Your task to perform on an android device: move a message to another label in the gmail app Image 0: 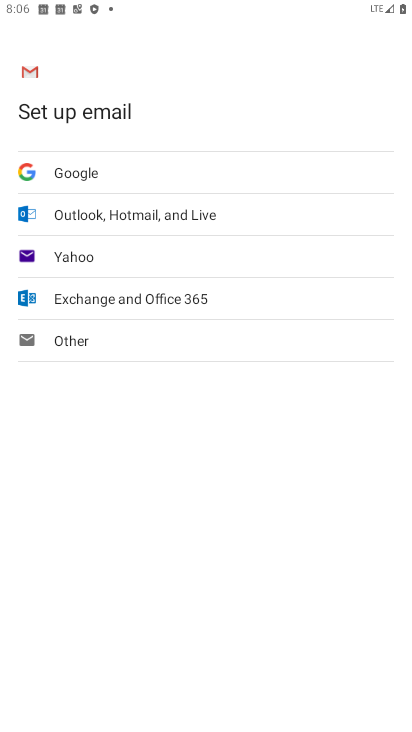
Step 0: press home button
Your task to perform on an android device: move a message to another label in the gmail app Image 1: 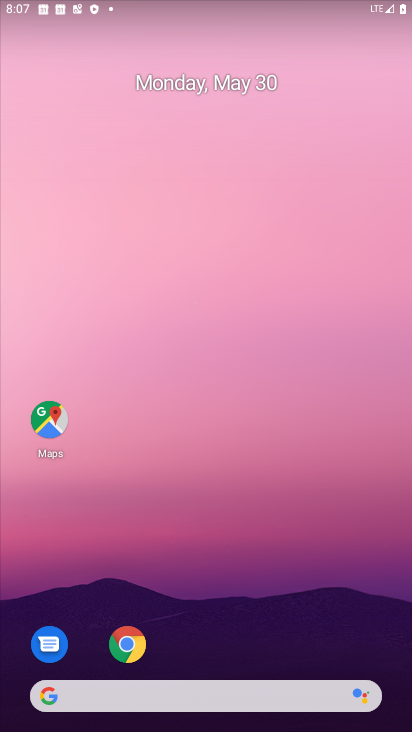
Step 1: drag from (240, 639) to (128, 91)
Your task to perform on an android device: move a message to another label in the gmail app Image 2: 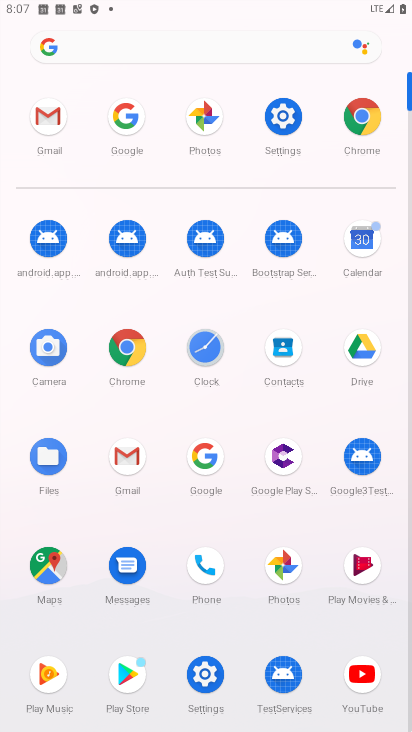
Step 2: click (47, 113)
Your task to perform on an android device: move a message to another label in the gmail app Image 3: 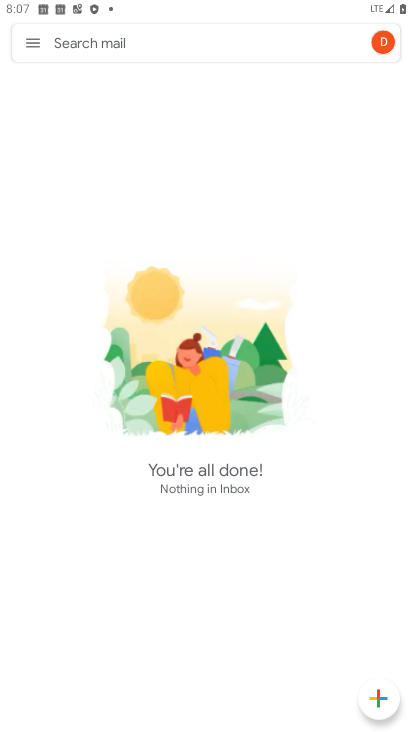
Step 3: click (34, 43)
Your task to perform on an android device: move a message to another label in the gmail app Image 4: 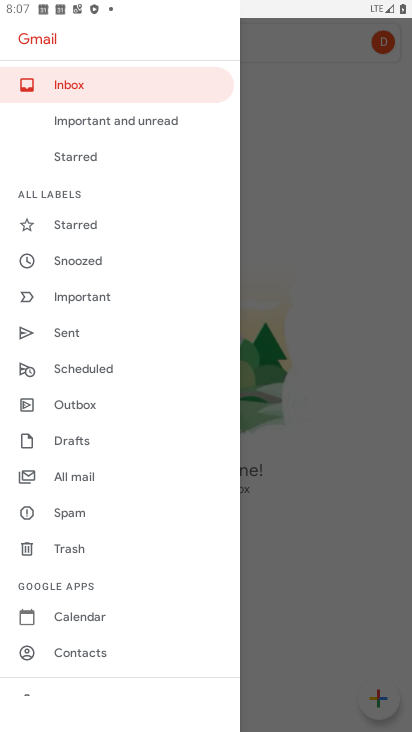
Step 4: click (79, 467)
Your task to perform on an android device: move a message to another label in the gmail app Image 5: 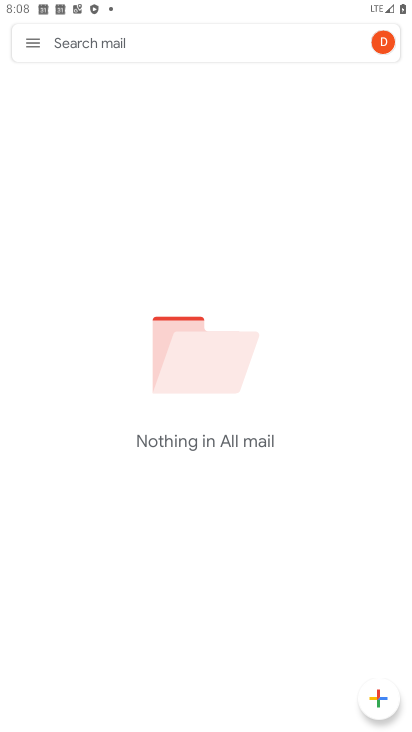
Step 5: click (35, 37)
Your task to perform on an android device: move a message to another label in the gmail app Image 6: 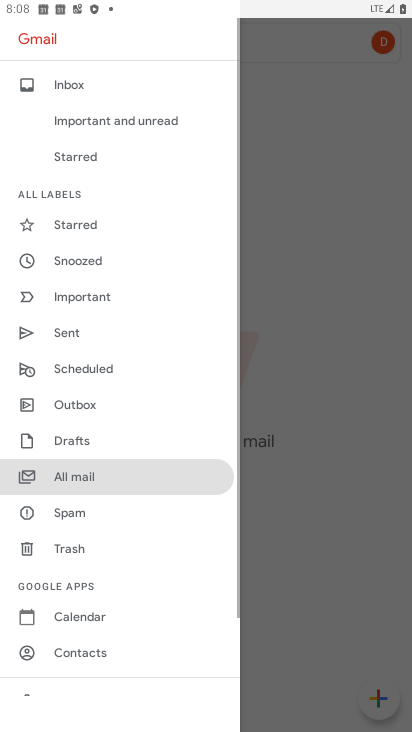
Step 6: click (75, 91)
Your task to perform on an android device: move a message to another label in the gmail app Image 7: 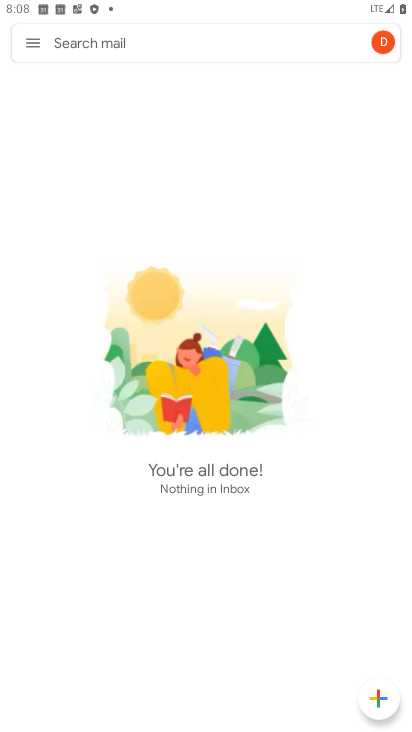
Step 7: task complete